Your task to perform on an android device: Go to notification settings Image 0: 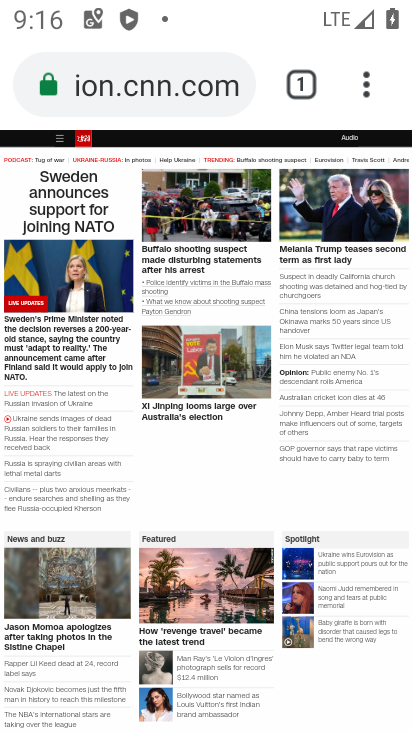
Step 0: click (367, 88)
Your task to perform on an android device: Go to notification settings Image 1: 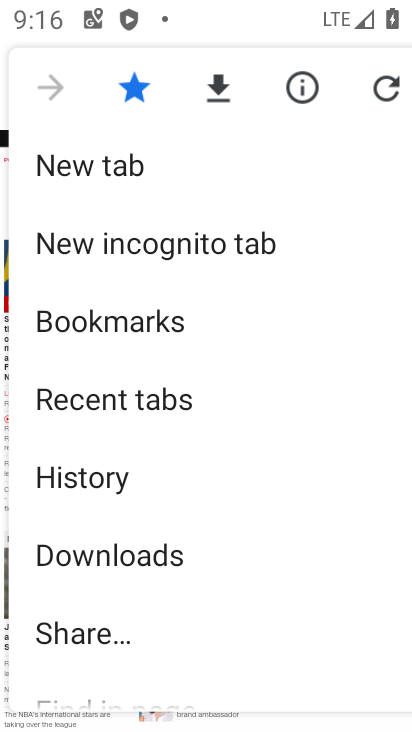
Step 1: press home button
Your task to perform on an android device: Go to notification settings Image 2: 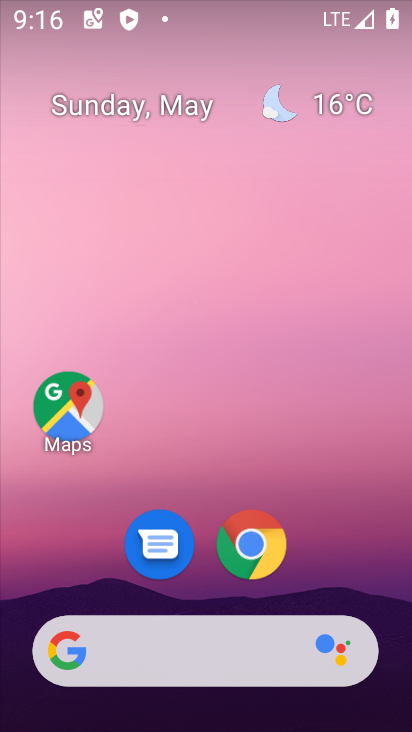
Step 2: drag from (332, 574) to (292, 92)
Your task to perform on an android device: Go to notification settings Image 3: 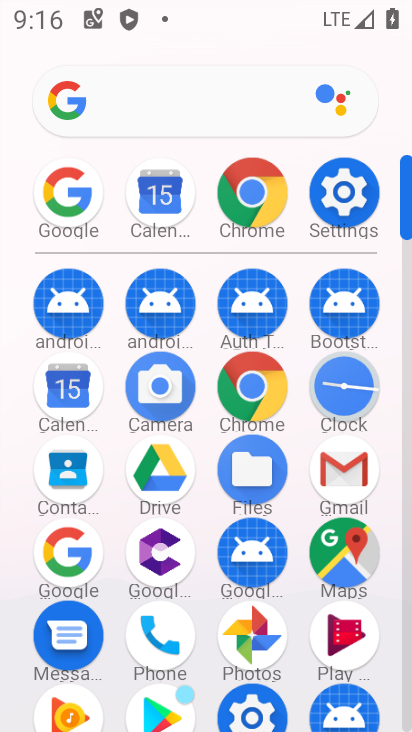
Step 3: click (354, 196)
Your task to perform on an android device: Go to notification settings Image 4: 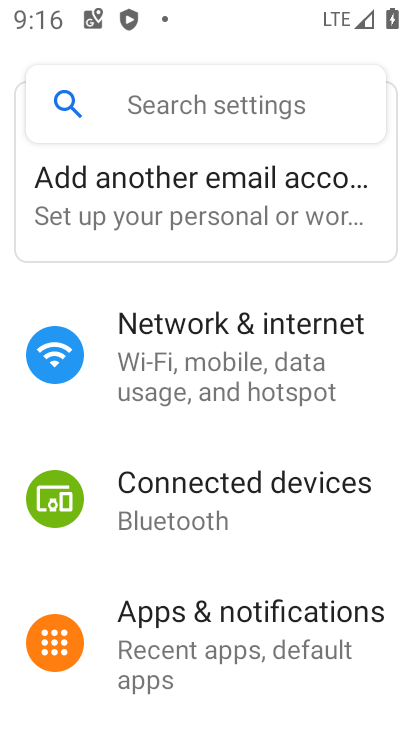
Step 4: drag from (247, 663) to (177, 372)
Your task to perform on an android device: Go to notification settings Image 5: 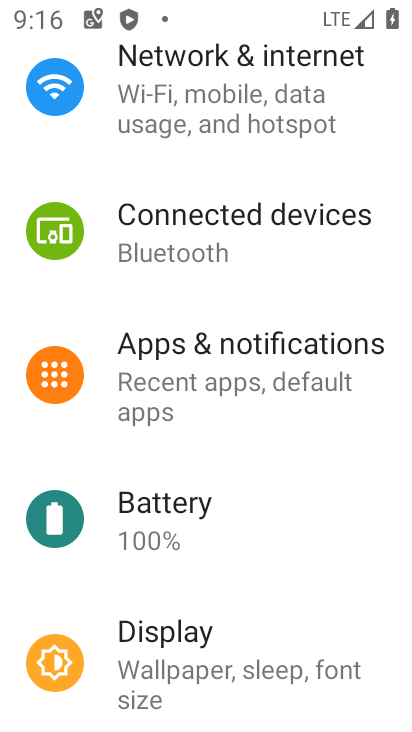
Step 5: click (206, 378)
Your task to perform on an android device: Go to notification settings Image 6: 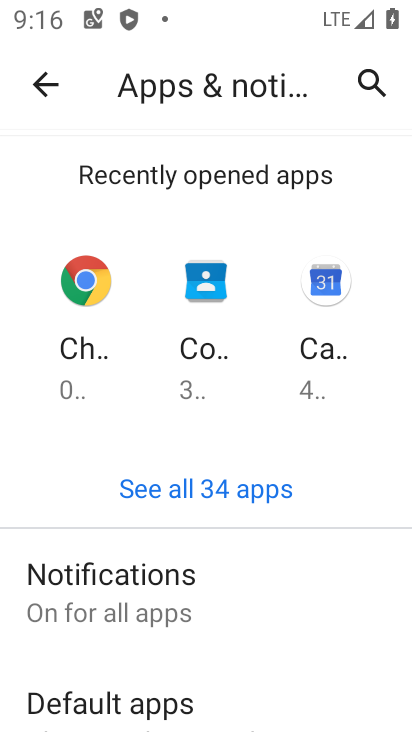
Step 6: click (159, 604)
Your task to perform on an android device: Go to notification settings Image 7: 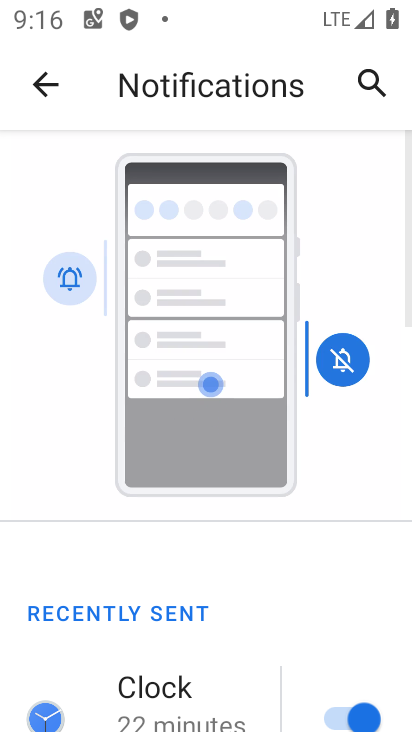
Step 7: task complete